Your task to perform on an android device: Open Google Chrome and click the shortcut for Amazon.com Image 0: 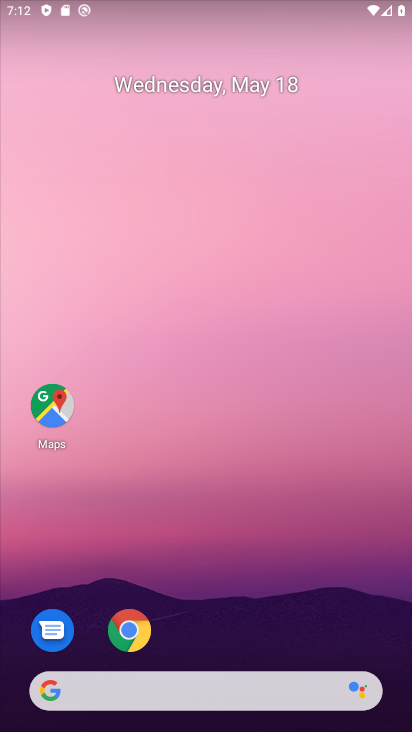
Step 0: click (129, 634)
Your task to perform on an android device: Open Google Chrome and click the shortcut for Amazon.com Image 1: 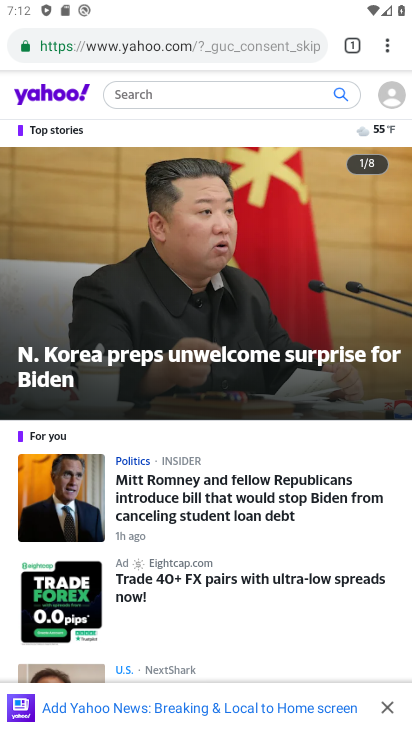
Step 1: click (388, 42)
Your task to perform on an android device: Open Google Chrome and click the shortcut for Amazon.com Image 2: 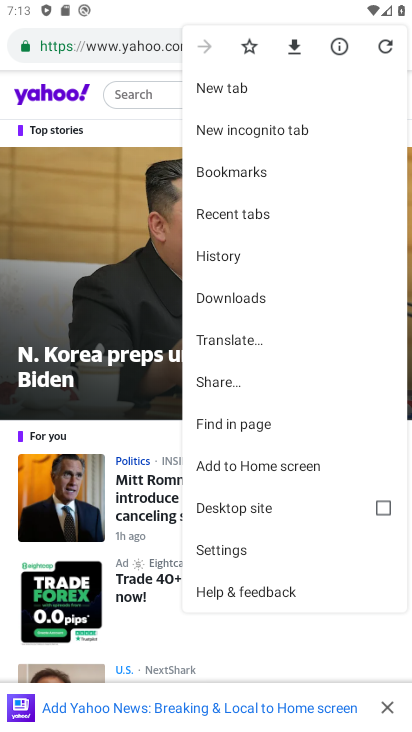
Step 2: click (232, 89)
Your task to perform on an android device: Open Google Chrome and click the shortcut for Amazon.com Image 3: 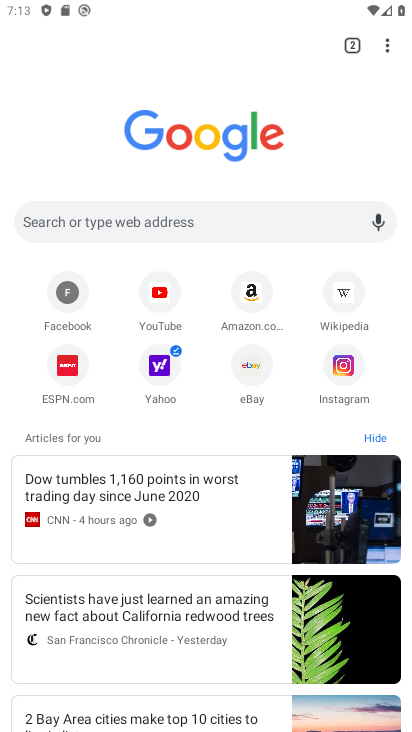
Step 3: click (248, 292)
Your task to perform on an android device: Open Google Chrome and click the shortcut for Amazon.com Image 4: 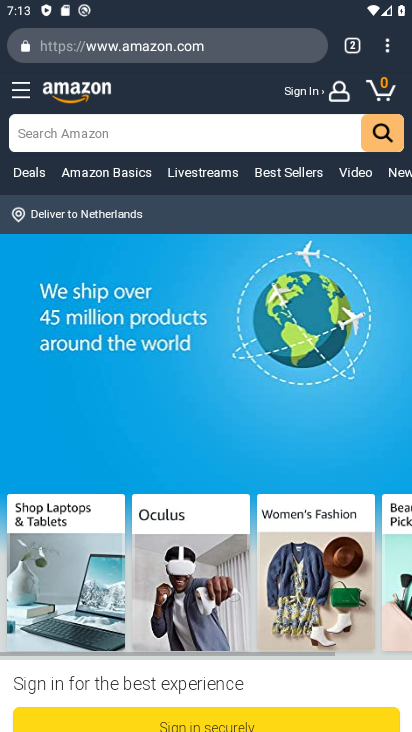
Step 4: task complete